Your task to perform on an android device: Open Google Maps Image 0: 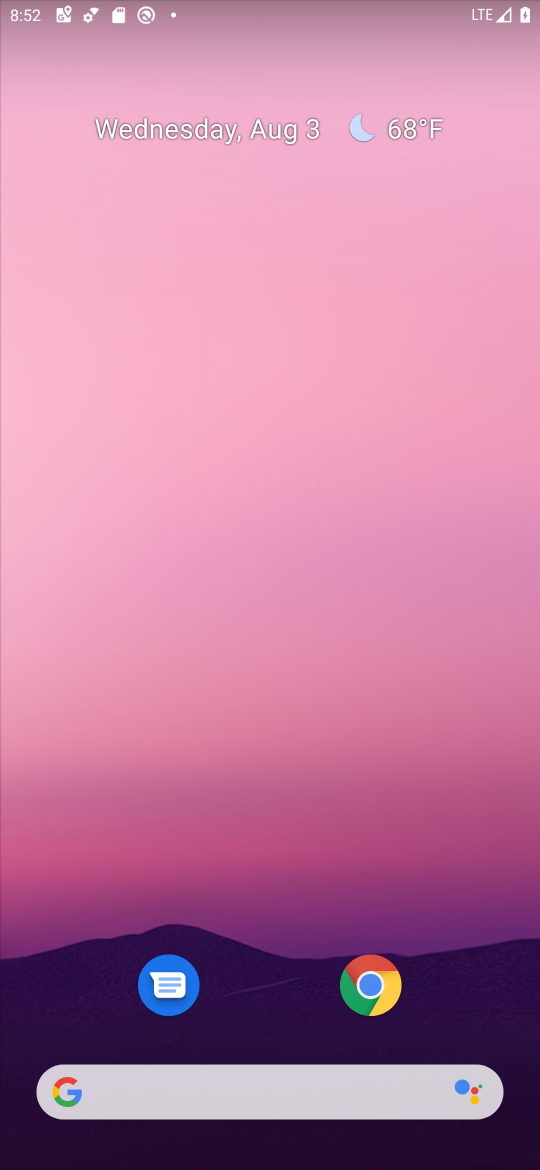
Step 0: drag from (263, 1034) to (288, 379)
Your task to perform on an android device: Open Google Maps Image 1: 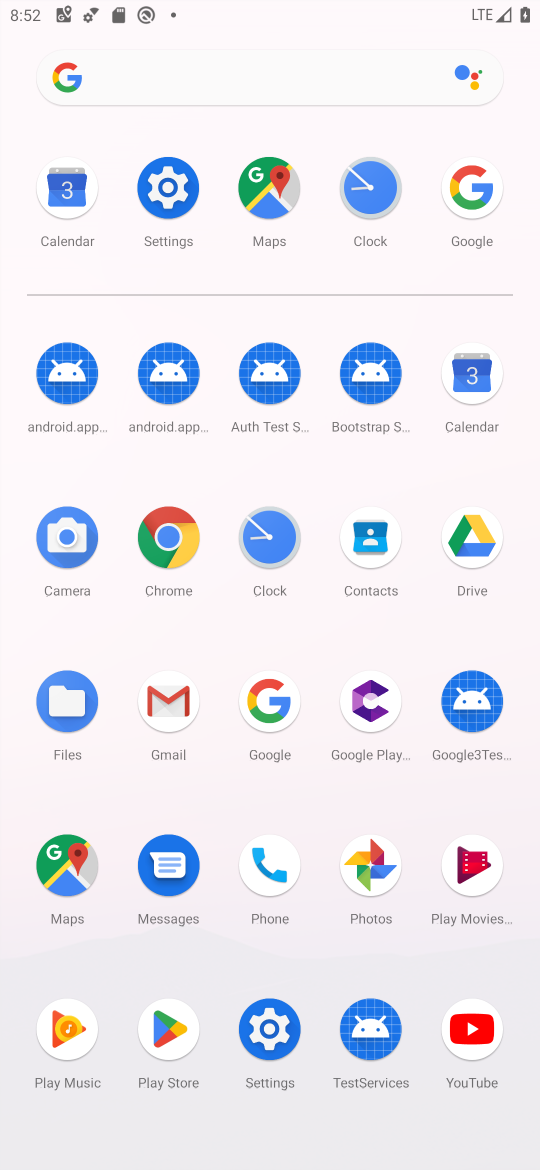
Step 1: click (266, 213)
Your task to perform on an android device: Open Google Maps Image 2: 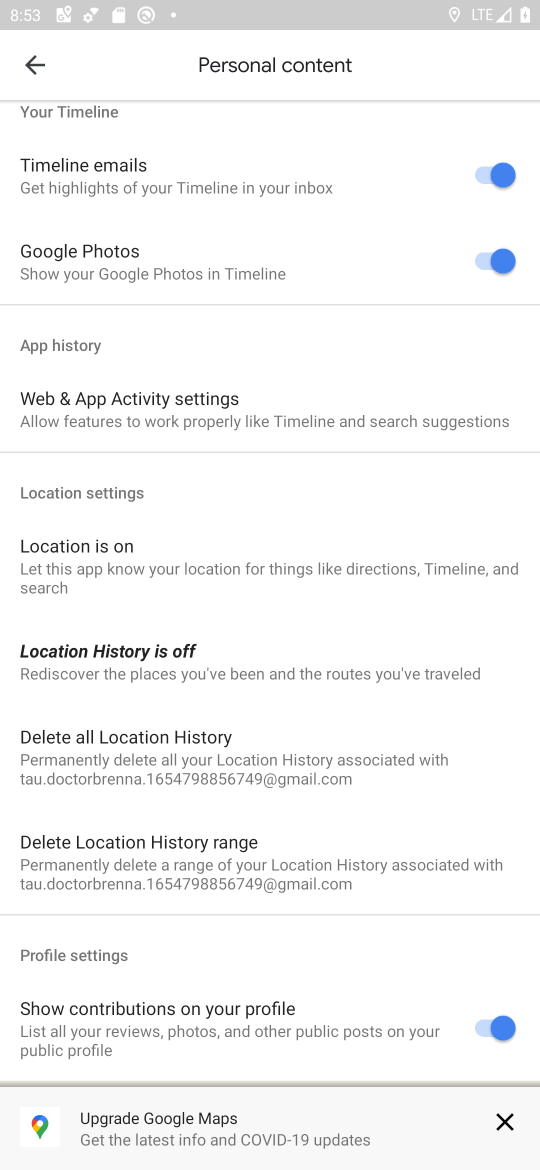
Step 2: click (34, 77)
Your task to perform on an android device: Open Google Maps Image 3: 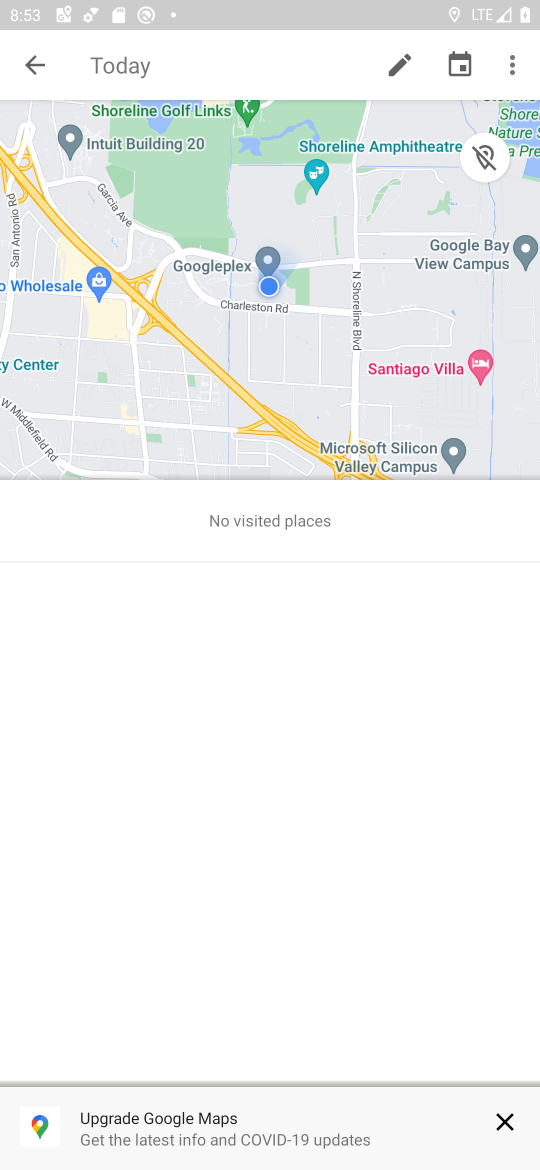
Step 3: task complete